Your task to perform on an android device: change the clock display to analog Image 0: 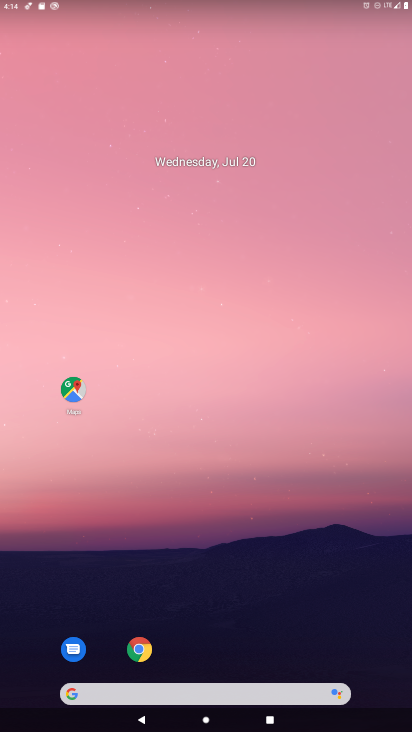
Step 0: drag from (184, 694) to (276, 44)
Your task to perform on an android device: change the clock display to analog Image 1: 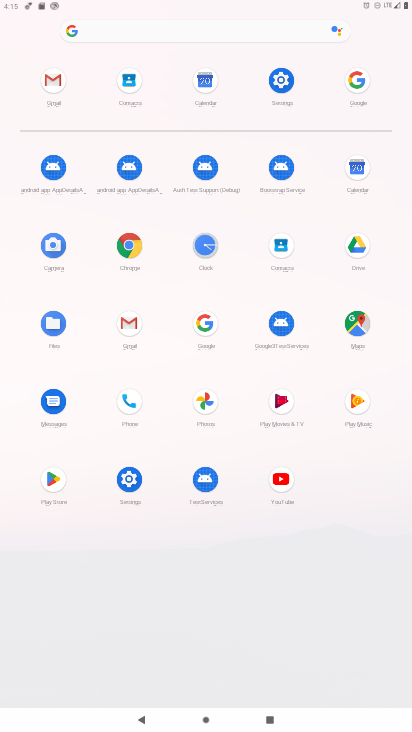
Step 1: click (206, 243)
Your task to perform on an android device: change the clock display to analog Image 2: 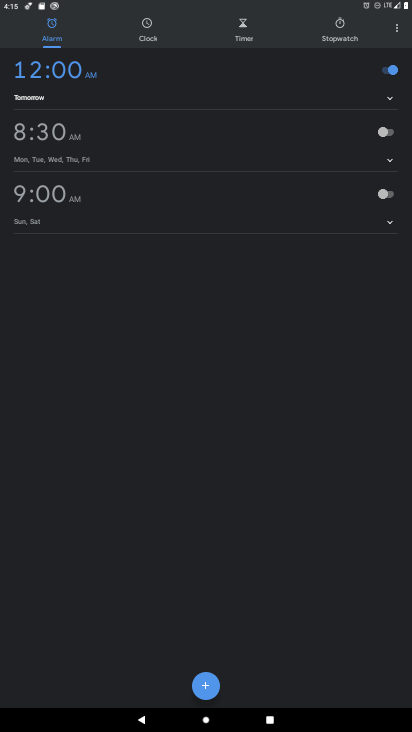
Step 2: click (399, 30)
Your task to perform on an android device: change the clock display to analog Image 3: 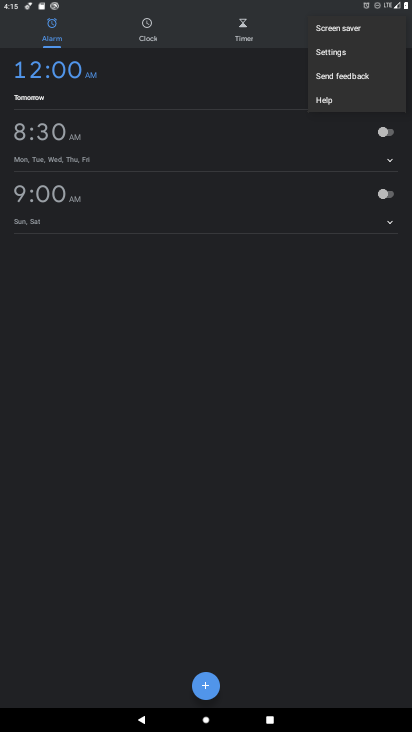
Step 3: click (344, 55)
Your task to perform on an android device: change the clock display to analog Image 4: 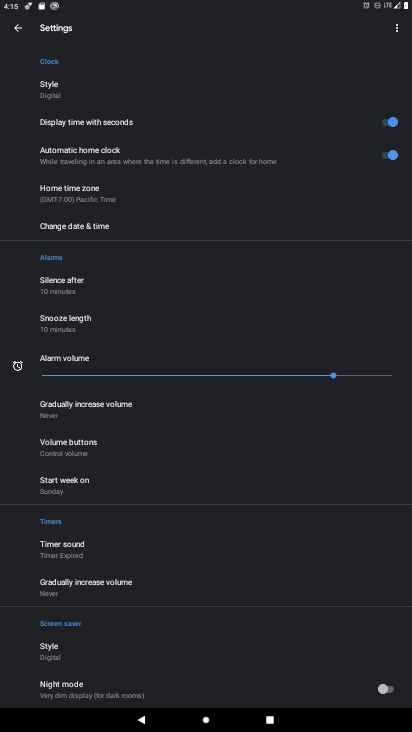
Step 4: click (46, 96)
Your task to perform on an android device: change the clock display to analog Image 5: 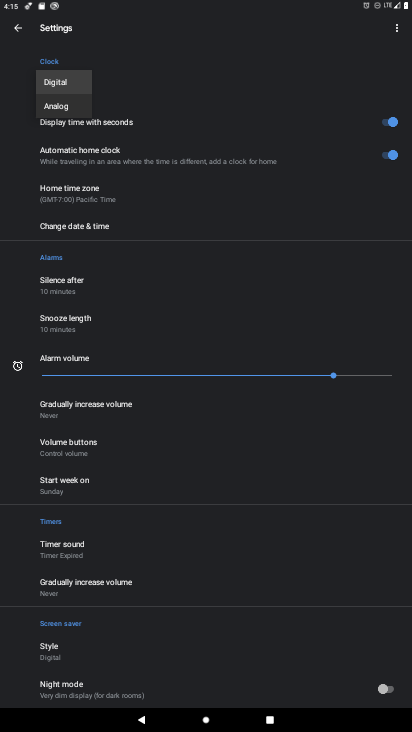
Step 5: click (52, 106)
Your task to perform on an android device: change the clock display to analog Image 6: 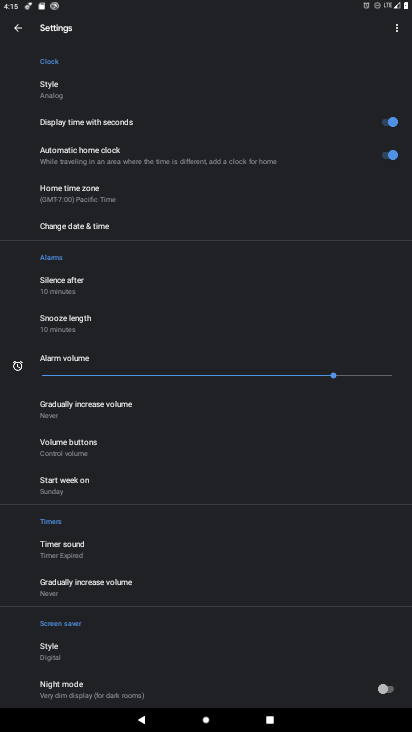
Step 6: task complete